Your task to perform on an android device: change the clock display to digital Image 0: 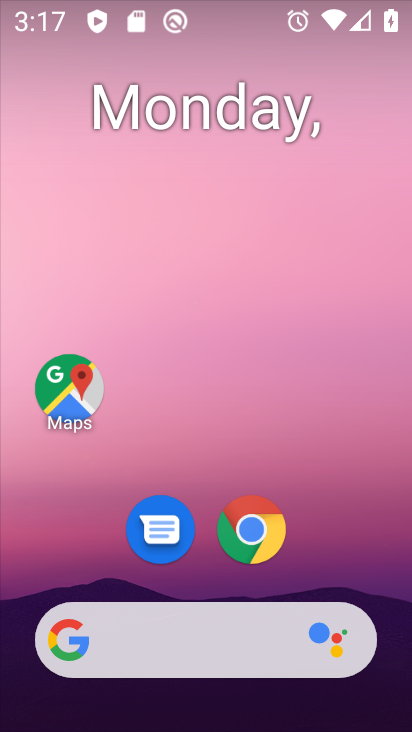
Step 0: drag from (202, 513) to (261, 44)
Your task to perform on an android device: change the clock display to digital Image 1: 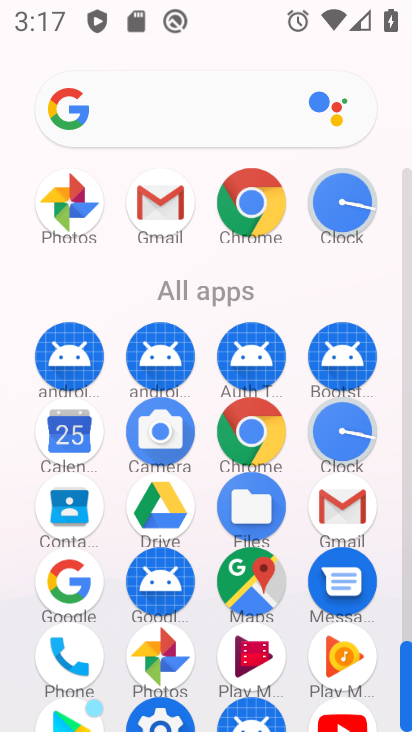
Step 1: click (350, 423)
Your task to perform on an android device: change the clock display to digital Image 2: 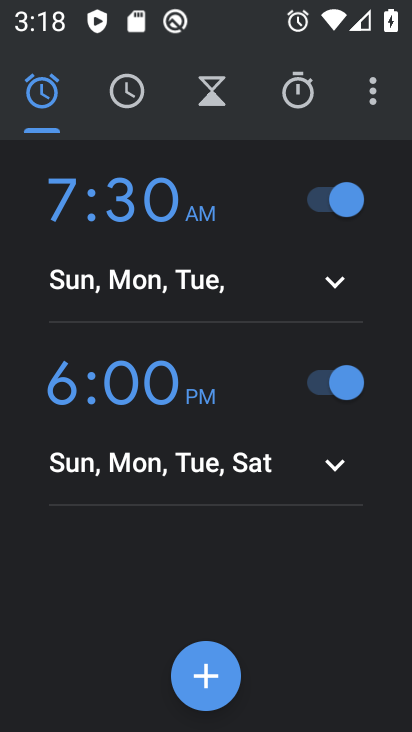
Step 2: click (369, 102)
Your task to perform on an android device: change the clock display to digital Image 3: 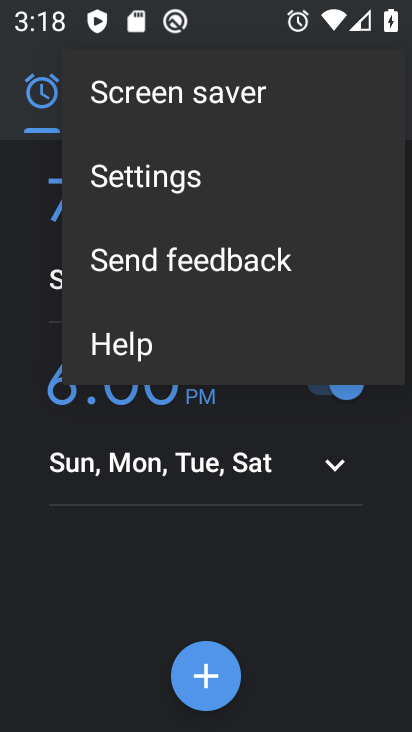
Step 3: click (182, 178)
Your task to perform on an android device: change the clock display to digital Image 4: 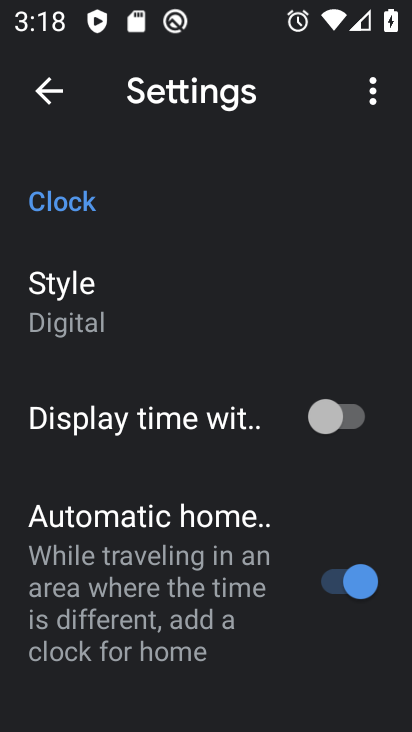
Step 4: click (96, 319)
Your task to perform on an android device: change the clock display to digital Image 5: 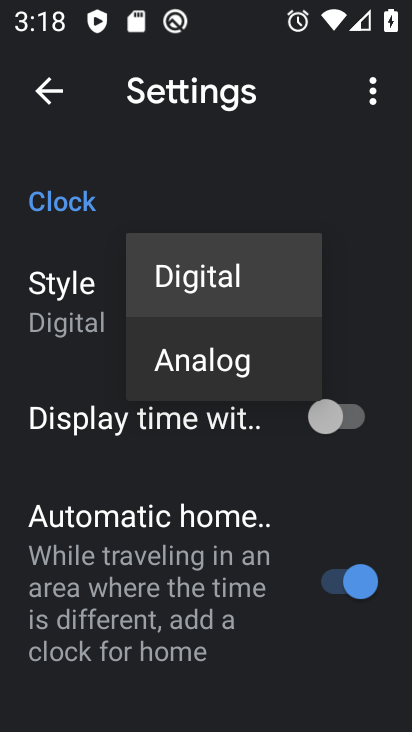
Step 5: task complete